Your task to perform on an android device: turn on sleep mode Image 0: 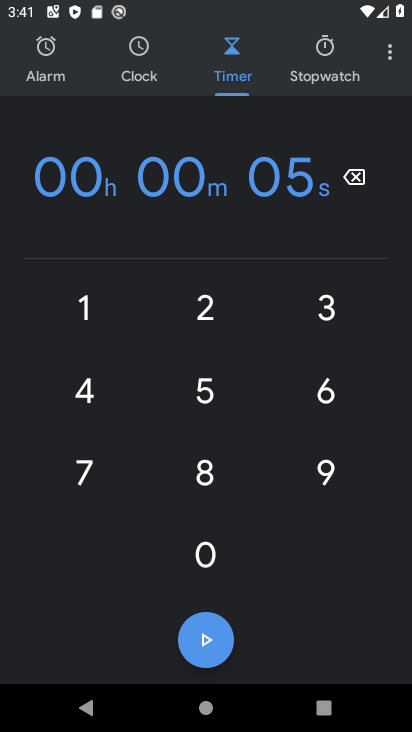
Step 0: press home button
Your task to perform on an android device: turn on sleep mode Image 1: 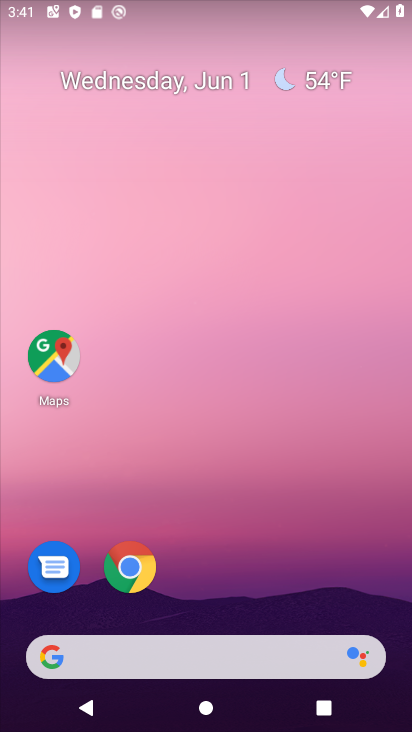
Step 1: drag from (199, 636) to (163, 340)
Your task to perform on an android device: turn on sleep mode Image 2: 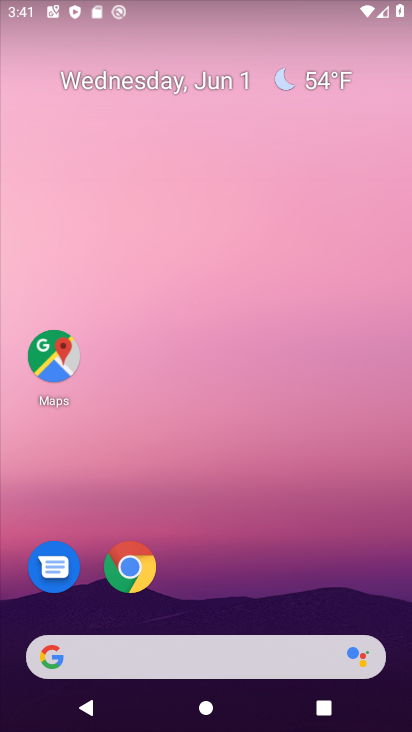
Step 2: drag from (222, 552) to (216, 283)
Your task to perform on an android device: turn on sleep mode Image 3: 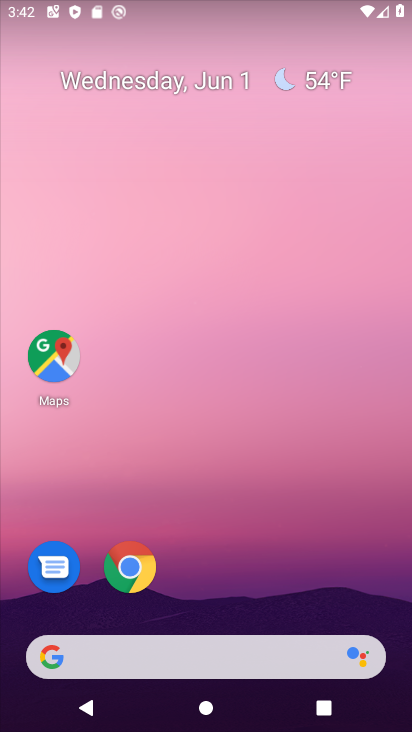
Step 3: drag from (265, 649) to (231, 133)
Your task to perform on an android device: turn on sleep mode Image 4: 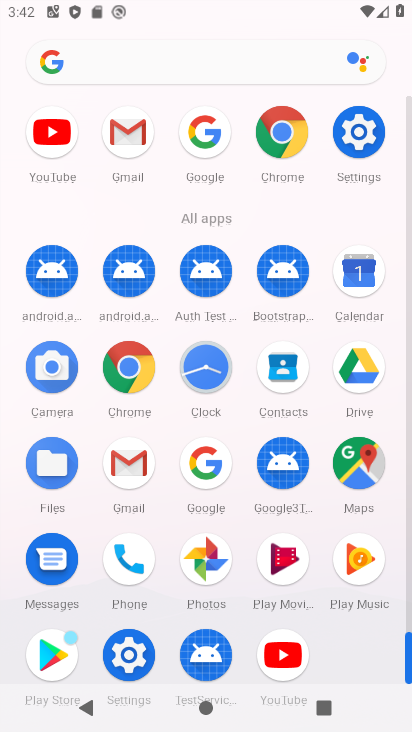
Step 4: click (358, 144)
Your task to perform on an android device: turn on sleep mode Image 5: 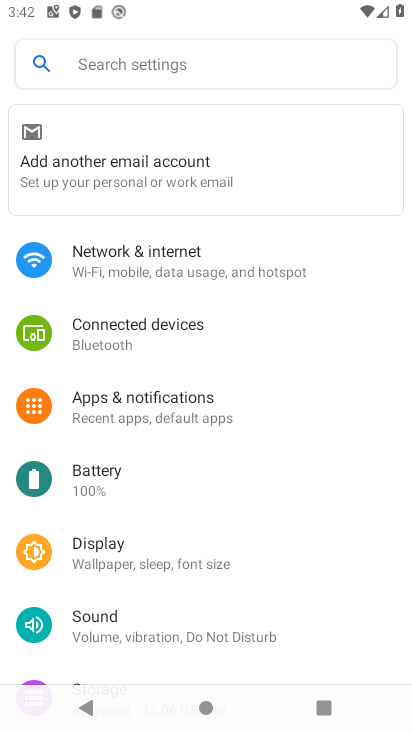
Step 5: click (213, 264)
Your task to perform on an android device: turn on sleep mode Image 6: 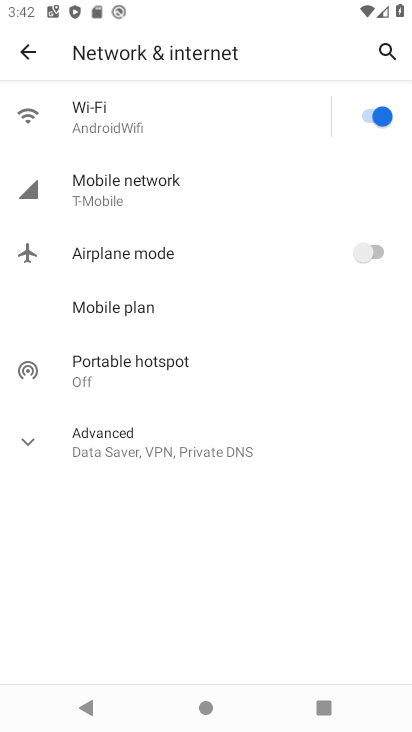
Step 6: click (100, 448)
Your task to perform on an android device: turn on sleep mode Image 7: 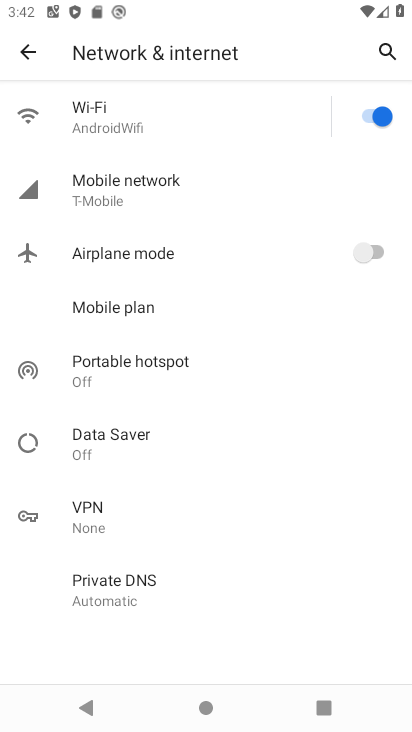
Step 7: task complete